Your task to perform on an android device: Open Youtube and go to "Your channel" Image 0: 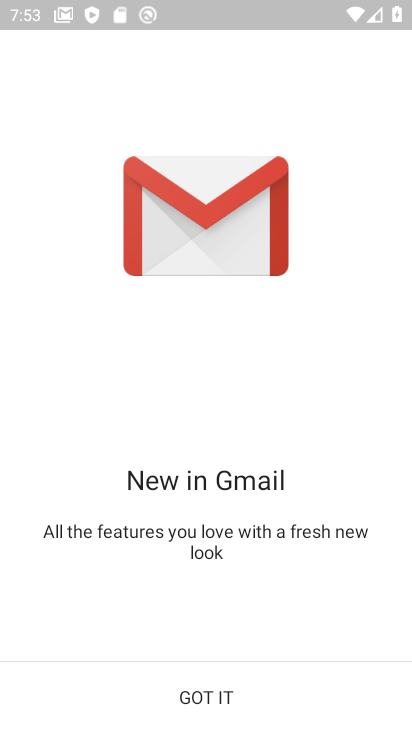
Step 0: press home button
Your task to perform on an android device: Open Youtube and go to "Your channel" Image 1: 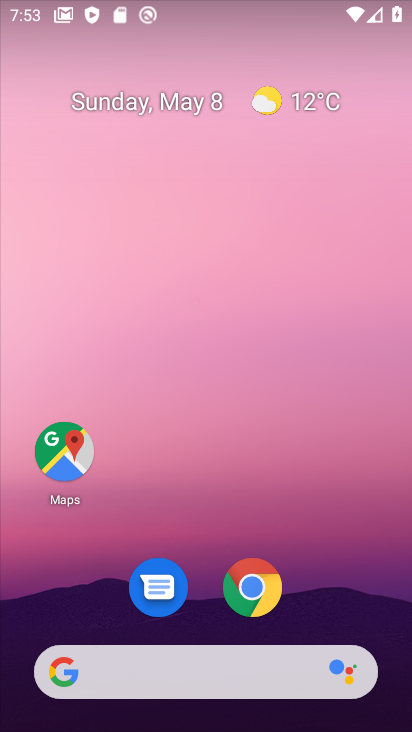
Step 1: drag from (343, 590) to (273, 86)
Your task to perform on an android device: Open Youtube and go to "Your channel" Image 2: 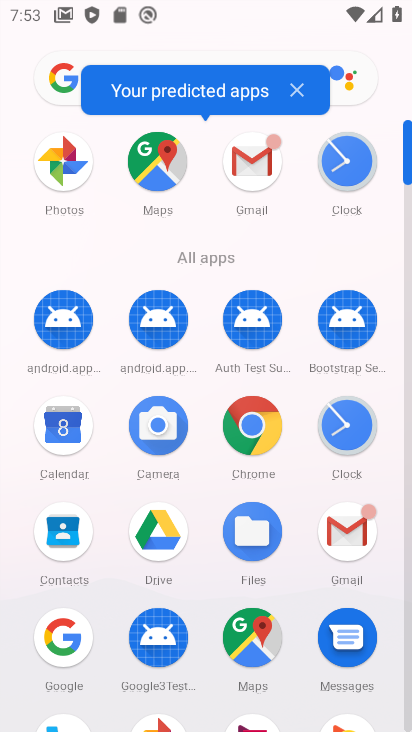
Step 2: drag from (192, 584) to (218, 130)
Your task to perform on an android device: Open Youtube and go to "Your channel" Image 3: 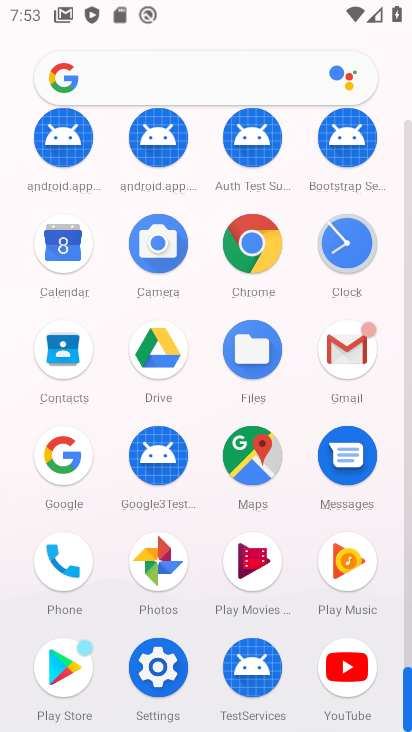
Step 3: click (351, 665)
Your task to perform on an android device: Open Youtube and go to "Your channel" Image 4: 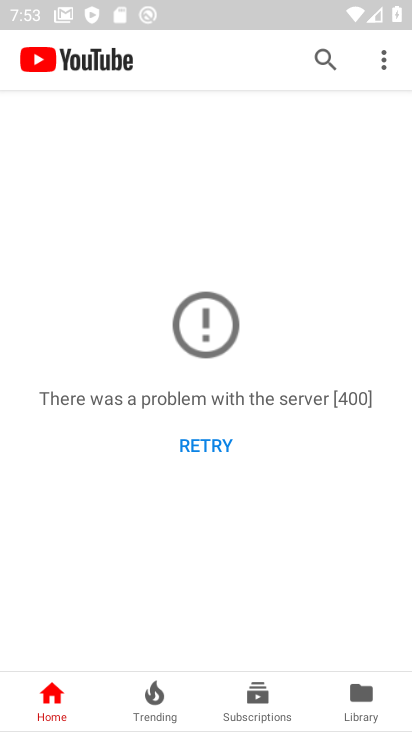
Step 4: click (384, 69)
Your task to perform on an android device: Open Youtube and go to "Your channel" Image 5: 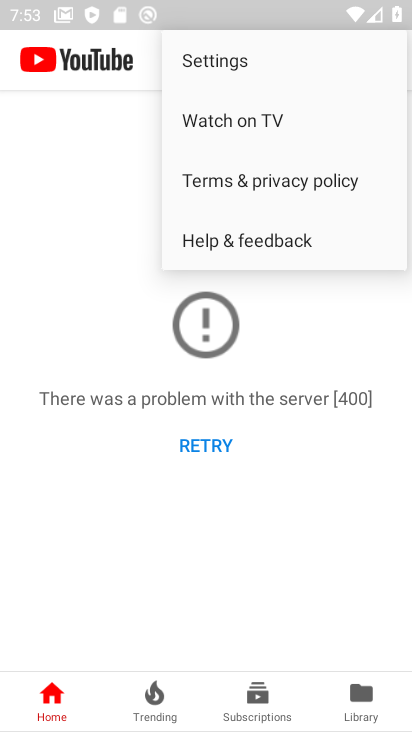
Step 5: task complete